Your task to perform on an android device: turn off airplane mode Image 0: 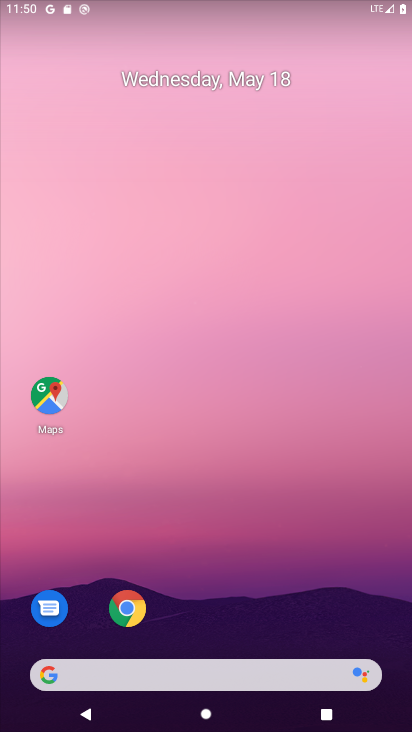
Step 0: drag from (197, 613) to (177, 214)
Your task to perform on an android device: turn off airplane mode Image 1: 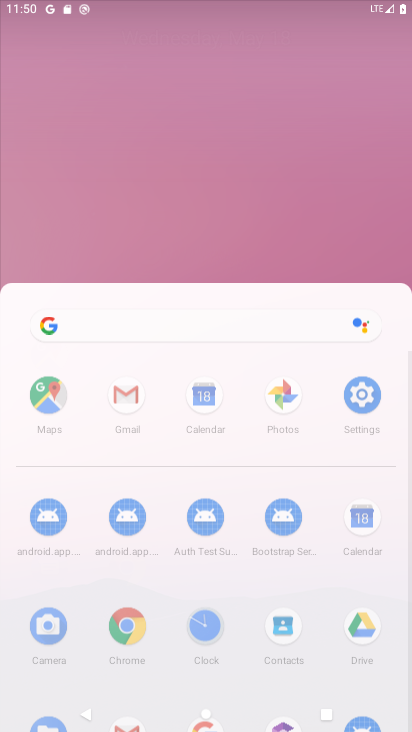
Step 1: click (177, 168)
Your task to perform on an android device: turn off airplane mode Image 2: 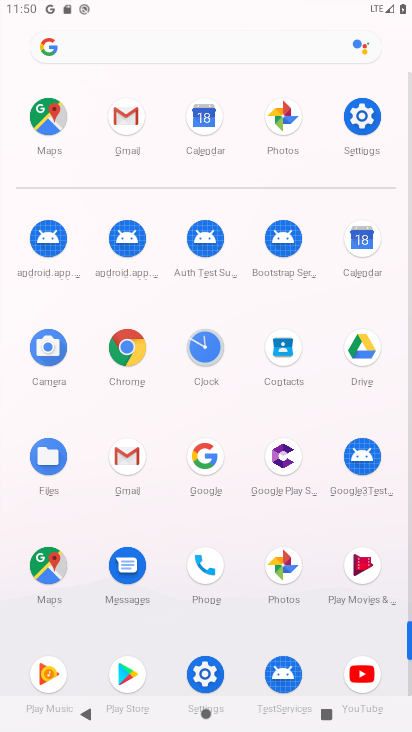
Step 2: click (358, 125)
Your task to perform on an android device: turn off airplane mode Image 3: 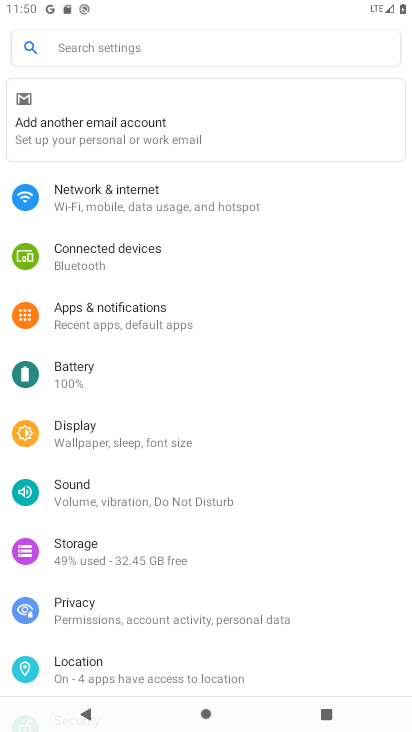
Step 3: click (150, 201)
Your task to perform on an android device: turn off airplane mode Image 4: 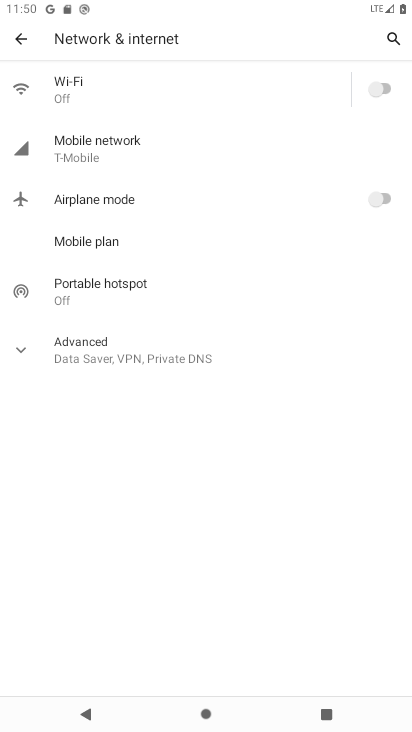
Step 4: task complete